Your task to perform on an android device: read, delete, or share a saved page in the chrome app Image 0: 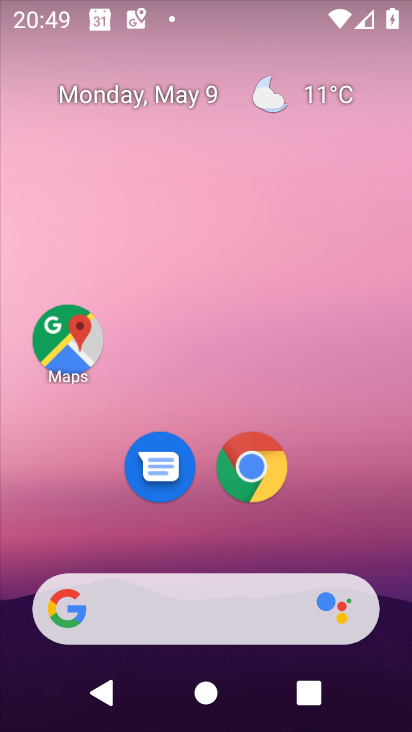
Step 0: drag from (348, 555) to (314, 227)
Your task to perform on an android device: read, delete, or share a saved page in the chrome app Image 1: 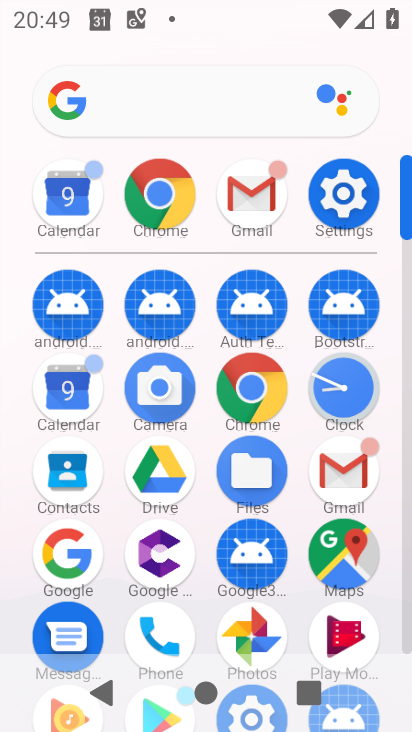
Step 1: click (244, 387)
Your task to perform on an android device: read, delete, or share a saved page in the chrome app Image 2: 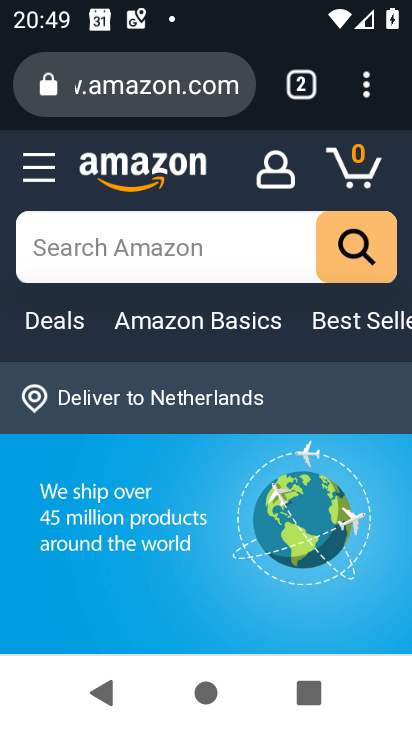
Step 2: click (350, 89)
Your task to perform on an android device: read, delete, or share a saved page in the chrome app Image 3: 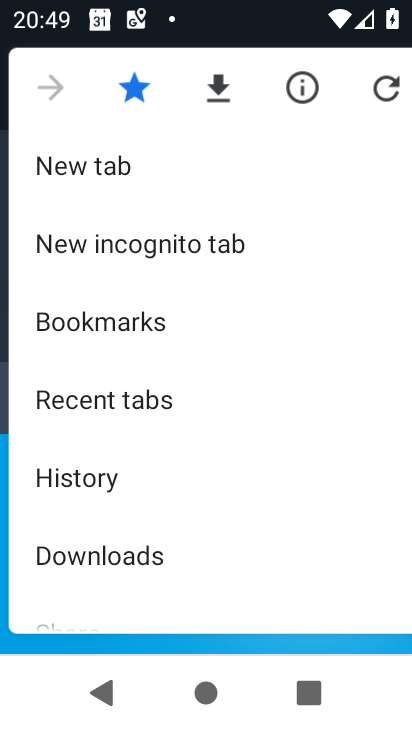
Step 3: drag from (139, 540) to (165, 351)
Your task to perform on an android device: read, delete, or share a saved page in the chrome app Image 4: 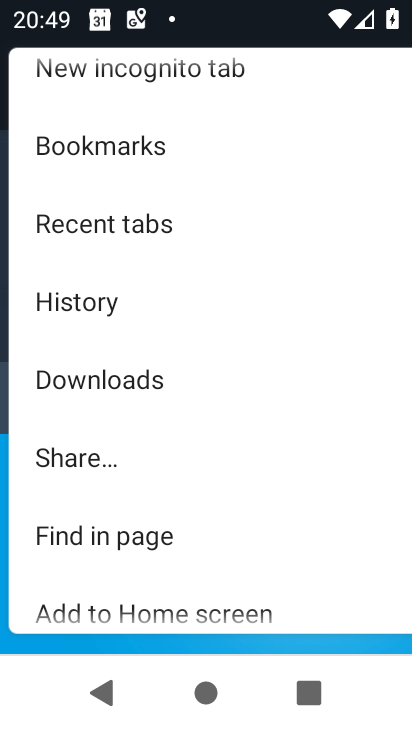
Step 4: click (129, 376)
Your task to perform on an android device: read, delete, or share a saved page in the chrome app Image 5: 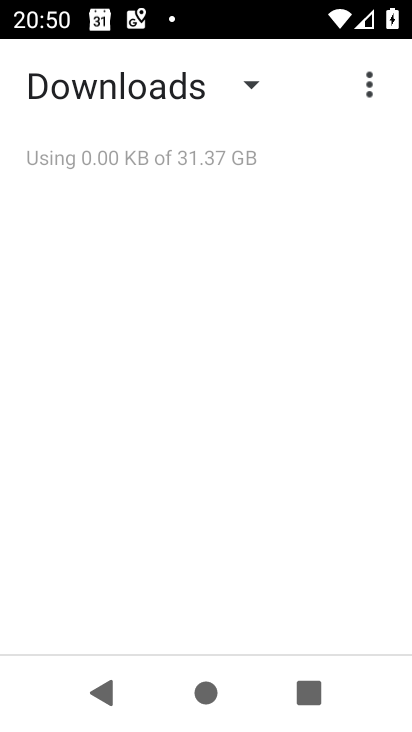
Step 5: click (237, 81)
Your task to perform on an android device: read, delete, or share a saved page in the chrome app Image 6: 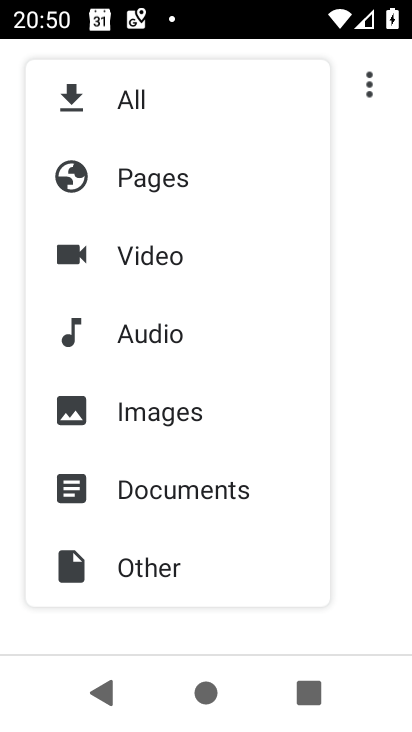
Step 6: click (144, 166)
Your task to perform on an android device: read, delete, or share a saved page in the chrome app Image 7: 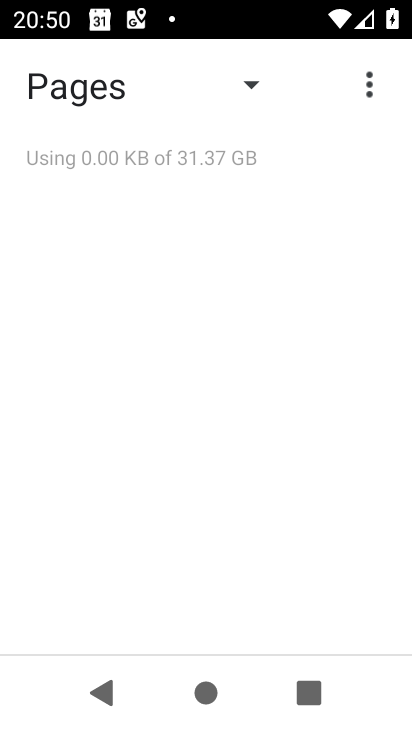
Step 7: task complete